Your task to perform on an android device: change the clock style Image 0: 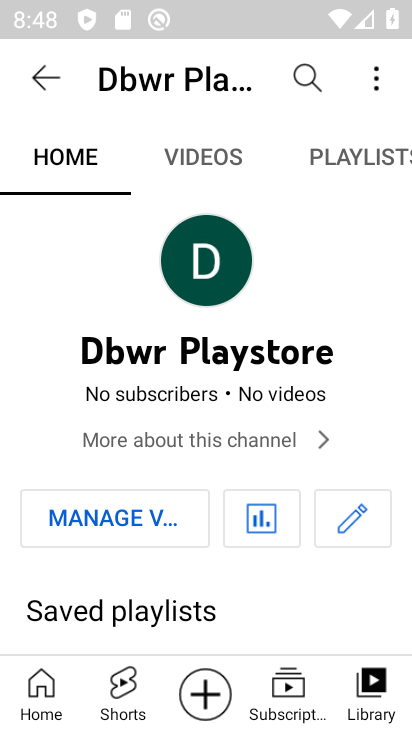
Step 0: press back button
Your task to perform on an android device: change the clock style Image 1: 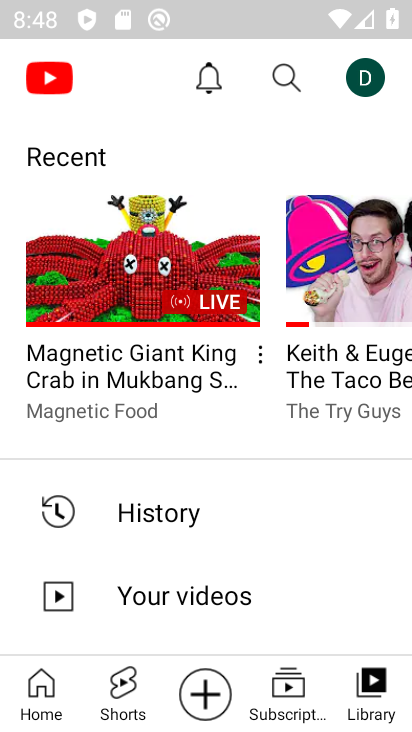
Step 1: press back button
Your task to perform on an android device: change the clock style Image 2: 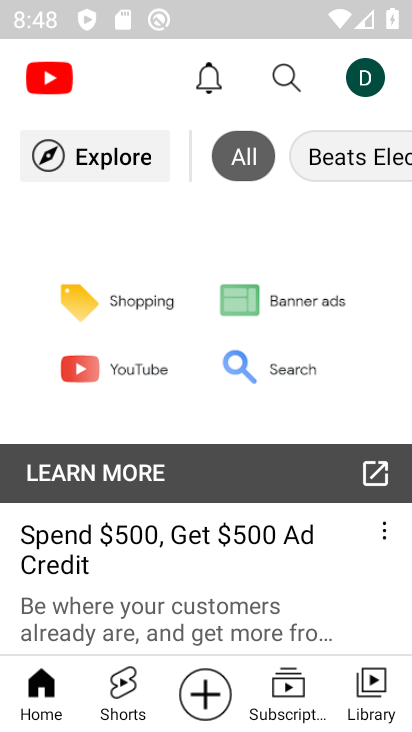
Step 2: press back button
Your task to perform on an android device: change the clock style Image 3: 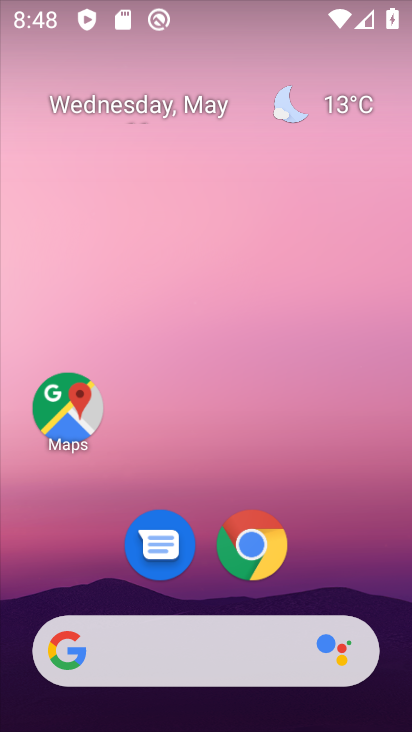
Step 3: drag from (312, 309) to (261, 14)
Your task to perform on an android device: change the clock style Image 4: 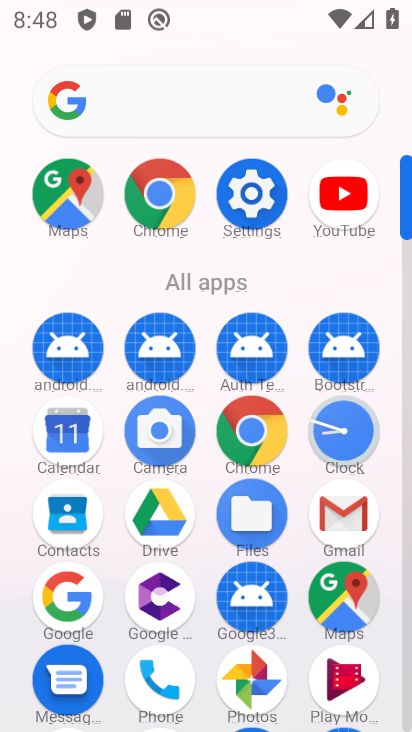
Step 4: drag from (15, 552) to (7, 241)
Your task to perform on an android device: change the clock style Image 5: 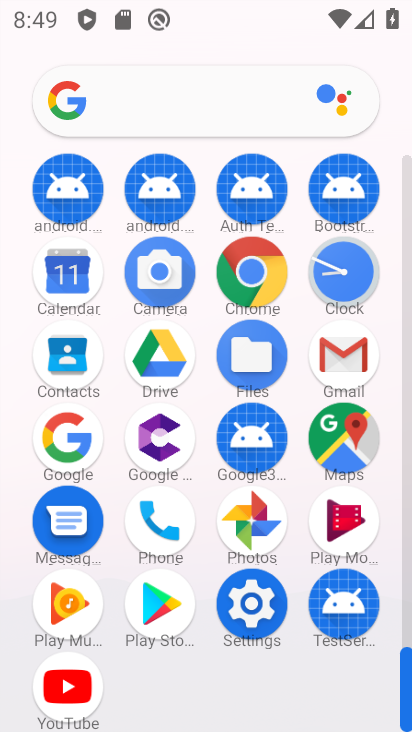
Step 5: click (337, 268)
Your task to perform on an android device: change the clock style Image 6: 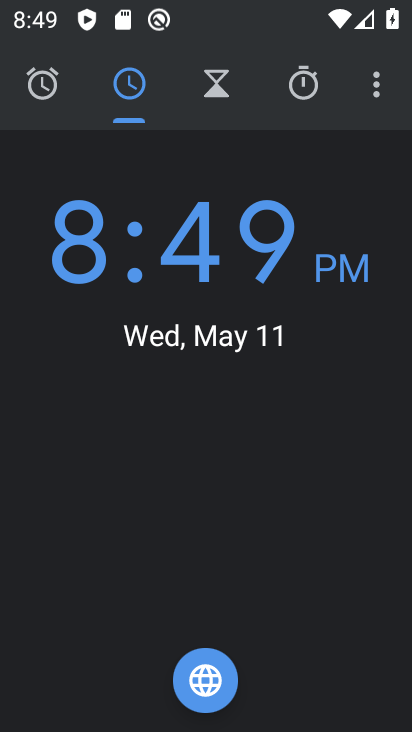
Step 6: drag from (376, 89) to (319, 156)
Your task to perform on an android device: change the clock style Image 7: 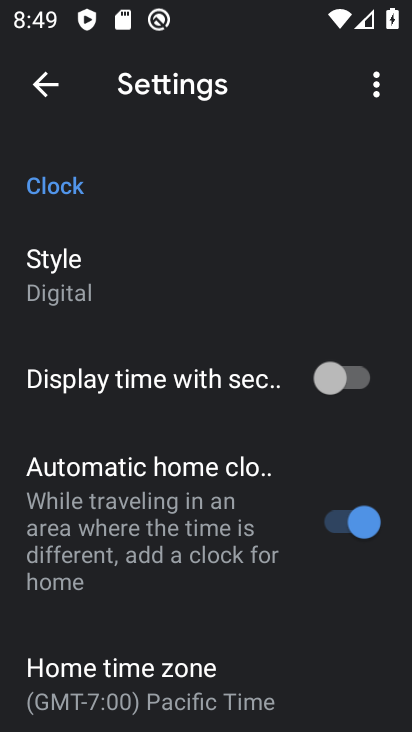
Step 7: click (118, 275)
Your task to perform on an android device: change the clock style Image 8: 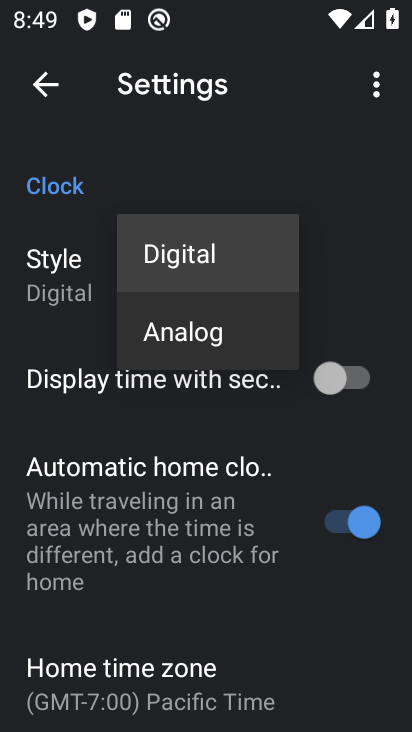
Step 8: click (158, 328)
Your task to perform on an android device: change the clock style Image 9: 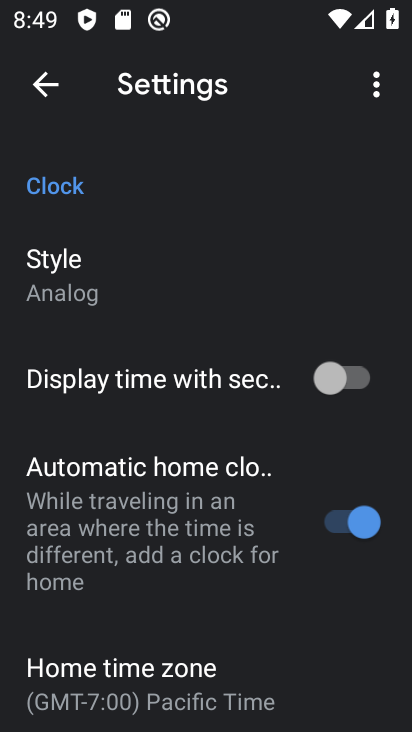
Step 9: task complete